Your task to perform on an android device: open device folders in google photos Image 0: 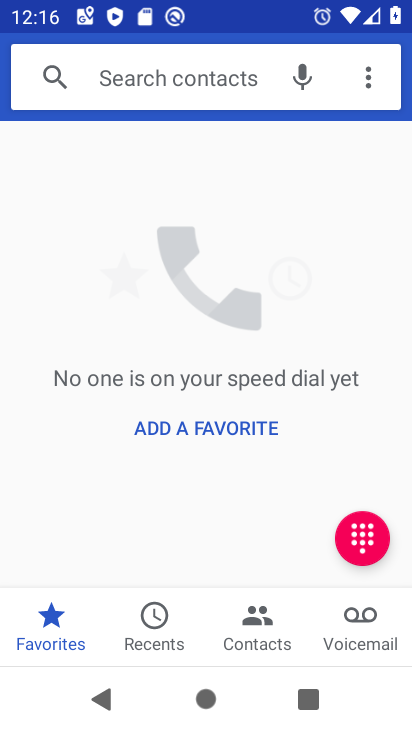
Step 0: press back button
Your task to perform on an android device: open device folders in google photos Image 1: 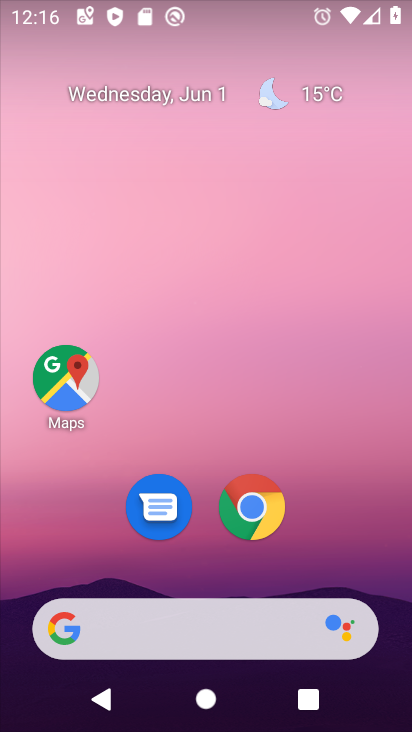
Step 1: drag from (351, 549) to (296, 160)
Your task to perform on an android device: open device folders in google photos Image 2: 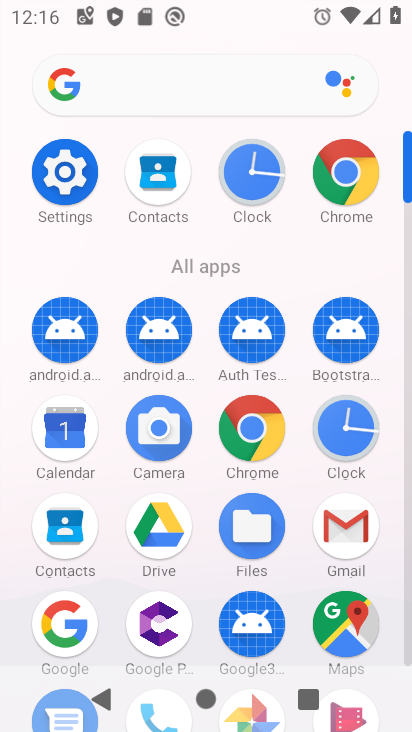
Step 2: drag from (204, 495) to (212, 293)
Your task to perform on an android device: open device folders in google photos Image 3: 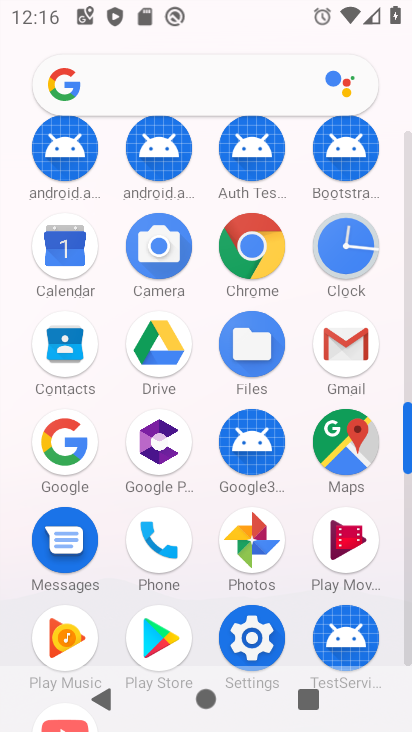
Step 3: click (252, 541)
Your task to perform on an android device: open device folders in google photos Image 4: 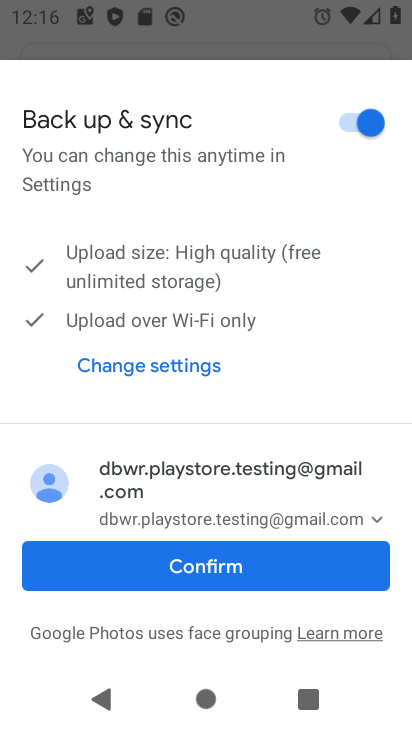
Step 4: click (201, 579)
Your task to perform on an android device: open device folders in google photos Image 5: 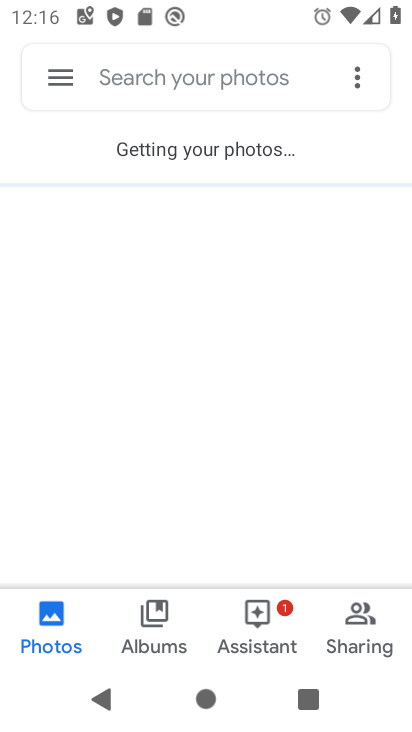
Step 5: click (61, 73)
Your task to perform on an android device: open device folders in google photos Image 6: 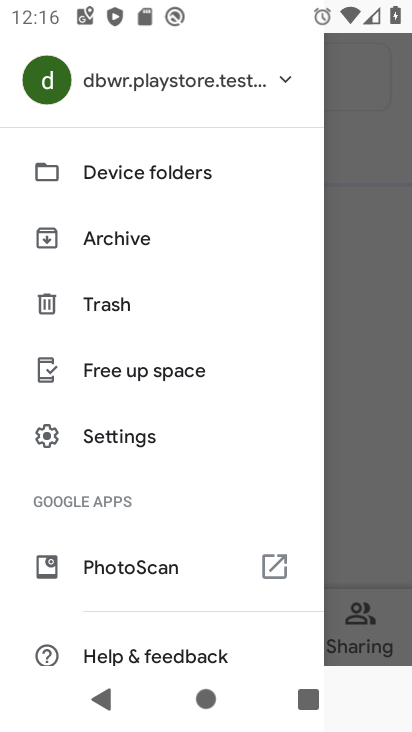
Step 6: click (136, 181)
Your task to perform on an android device: open device folders in google photos Image 7: 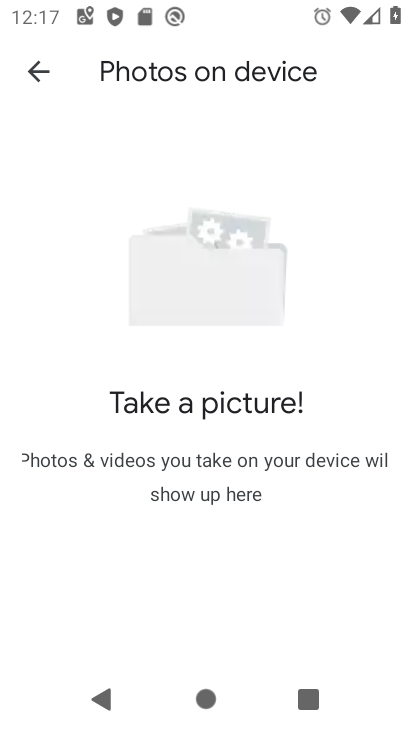
Step 7: task complete